Your task to perform on an android device: choose inbox layout in the gmail app Image 0: 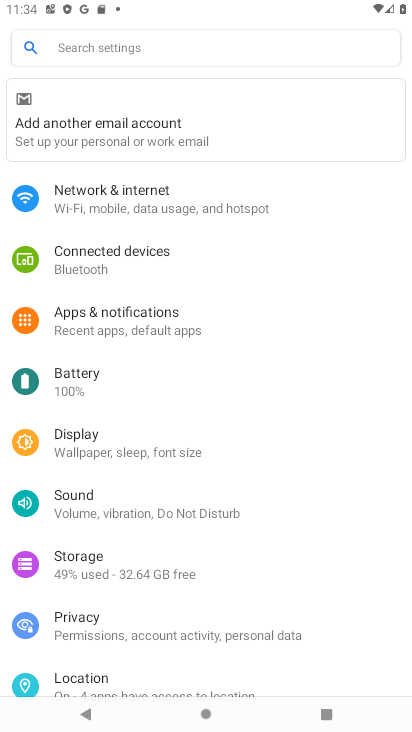
Step 0: press home button
Your task to perform on an android device: choose inbox layout in the gmail app Image 1: 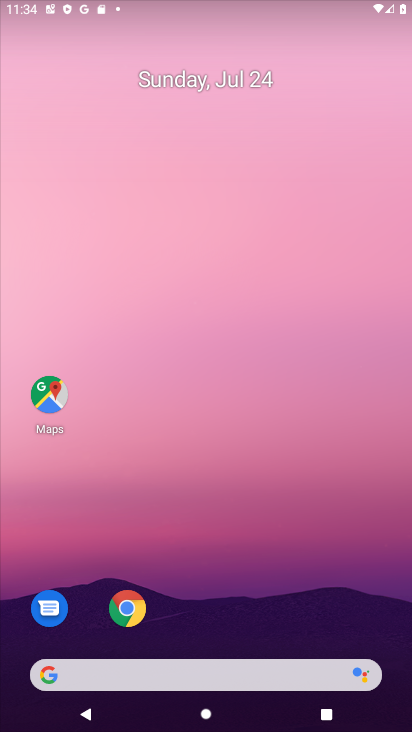
Step 1: drag from (330, 583) to (315, 130)
Your task to perform on an android device: choose inbox layout in the gmail app Image 2: 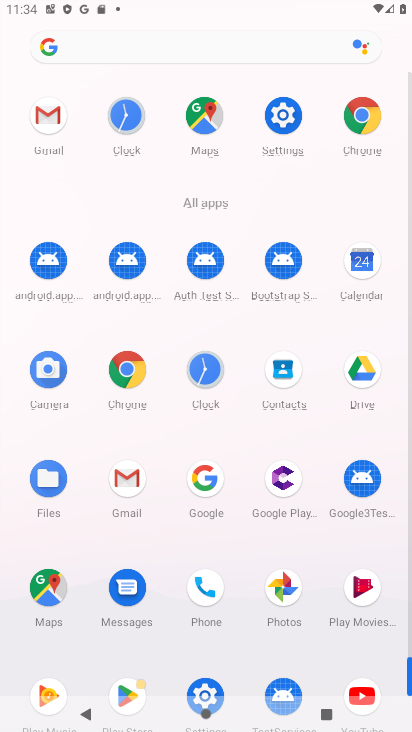
Step 2: click (48, 116)
Your task to perform on an android device: choose inbox layout in the gmail app Image 3: 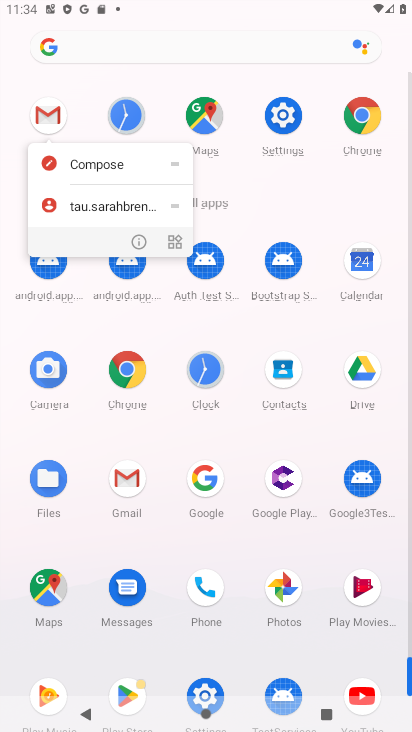
Step 3: click (48, 115)
Your task to perform on an android device: choose inbox layout in the gmail app Image 4: 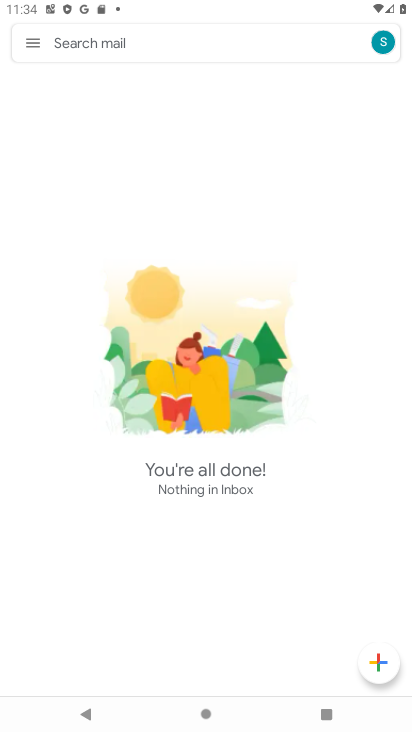
Step 4: click (22, 42)
Your task to perform on an android device: choose inbox layout in the gmail app Image 5: 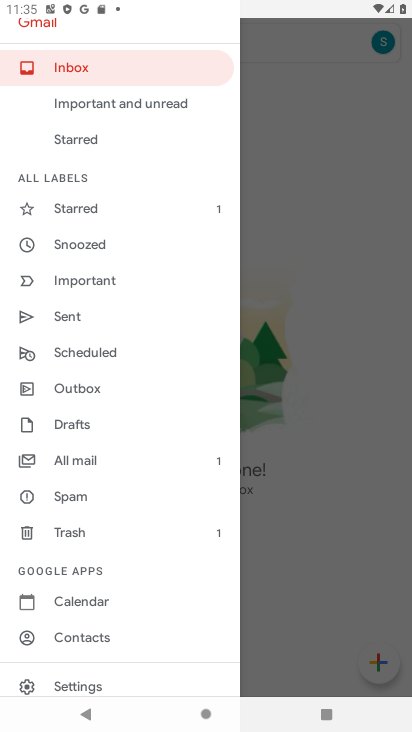
Step 5: drag from (147, 601) to (68, 104)
Your task to perform on an android device: choose inbox layout in the gmail app Image 6: 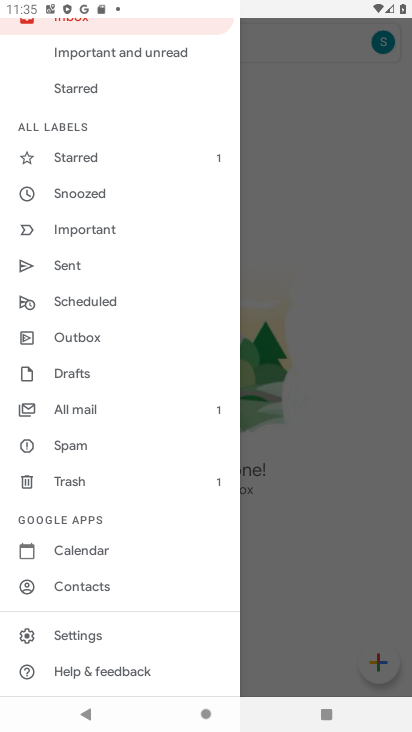
Step 6: click (82, 633)
Your task to perform on an android device: choose inbox layout in the gmail app Image 7: 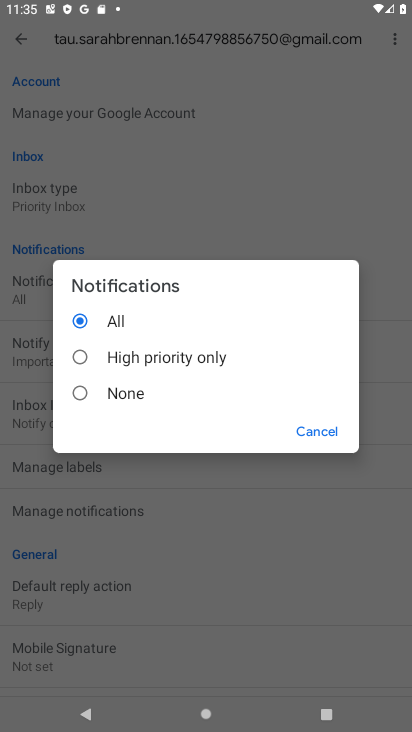
Step 7: click (328, 436)
Your task to perform on an android device: choose inbox layout in the gmail app Image 8: 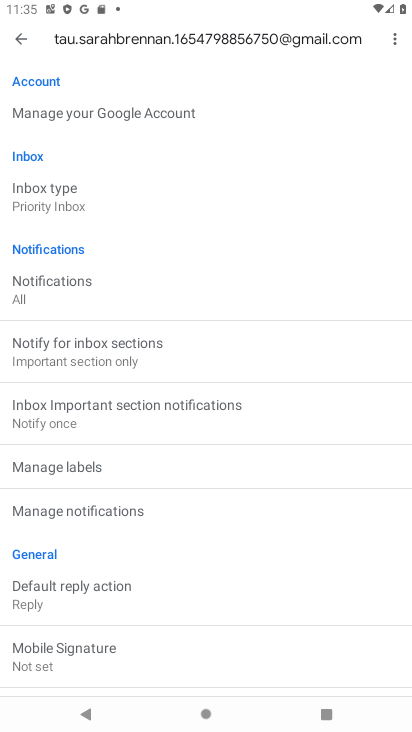
Step 8: drag from (110, 156) to (131, 561)
Your task to perform on an android device: choose inbox layout in the gmail app Image 9: 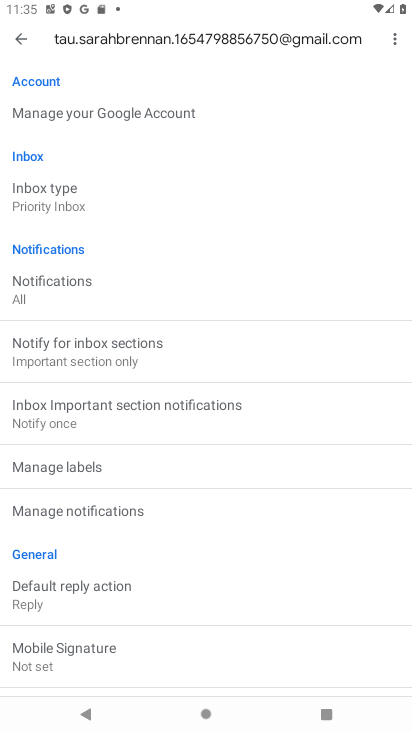
Step 9: click (55, 204)
Your task to perform on an android device: choose inbox layout in the gmail app Image 10: 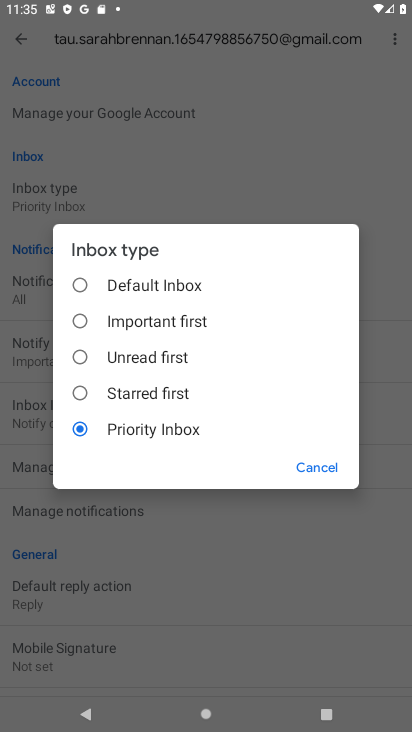
Step 10: click (113, 364)
Your task to perform on an android device: choose inbox layout in the gmail app Image 11: 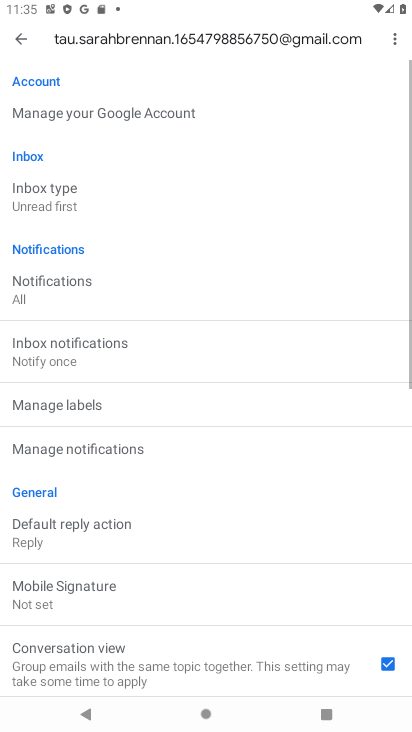
Step 11: task complete